Your task to perform on an android device: Go to Yahoo.com Image 0: 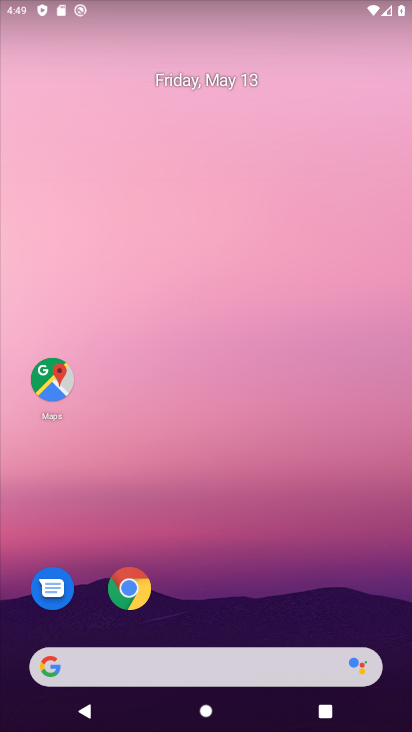
Step 0: click (134, 591)
Your task to perform on an android device: Go to Yahoo.com Image 1: 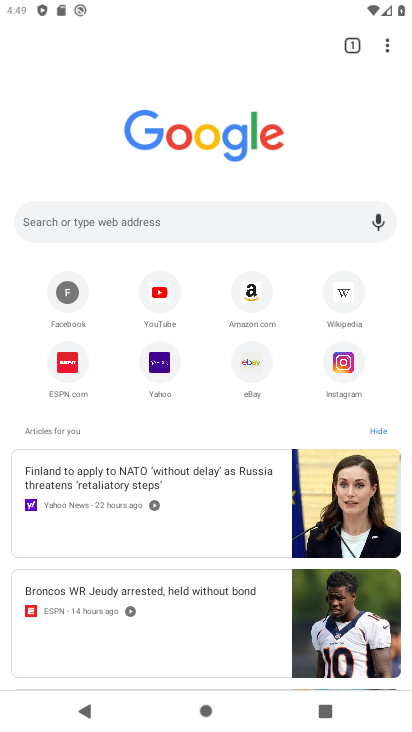
Step 1: click (175, 374)
Your task to perform on an android device: Go to Yahoo.com Image 2: 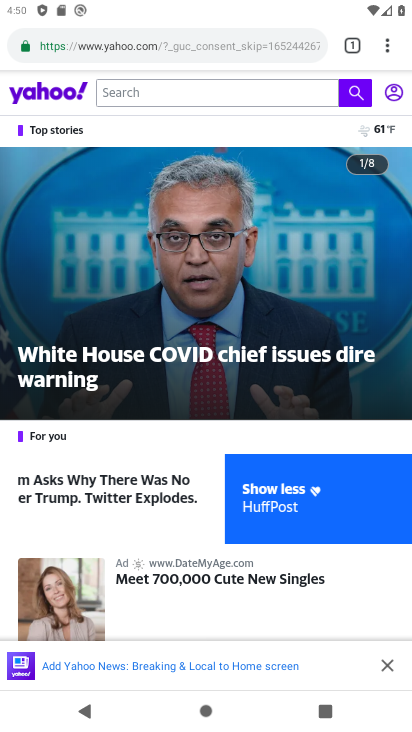
Step 2: task complete